Your task to perform on an android device: toggle location history Image 0: 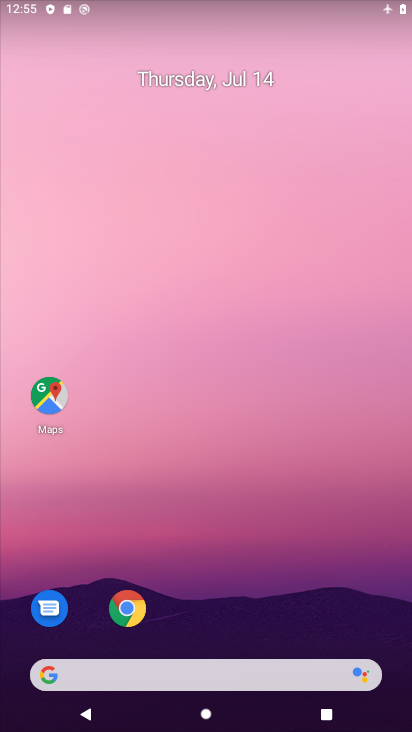
Step 0: click (48, 394)
Your task to perform on an android device: toggle location history Image 1: 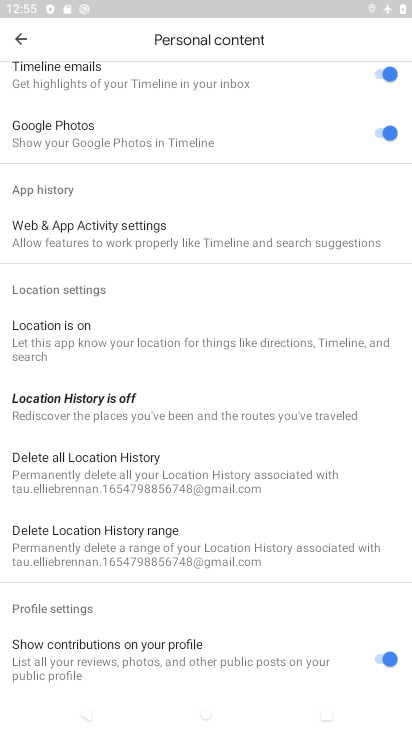
Step 1: click (72, 404)
Your task to perform on an android device: toggle location history Image 2: 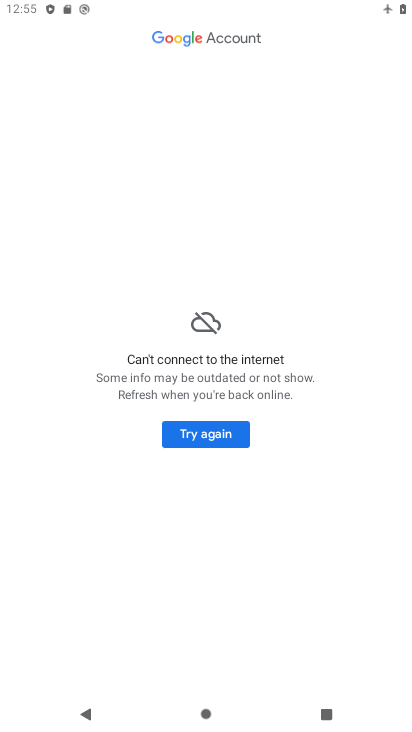
Step 2: click (211, 435)
Your task to perform on an android device: toggle location history Image 3: 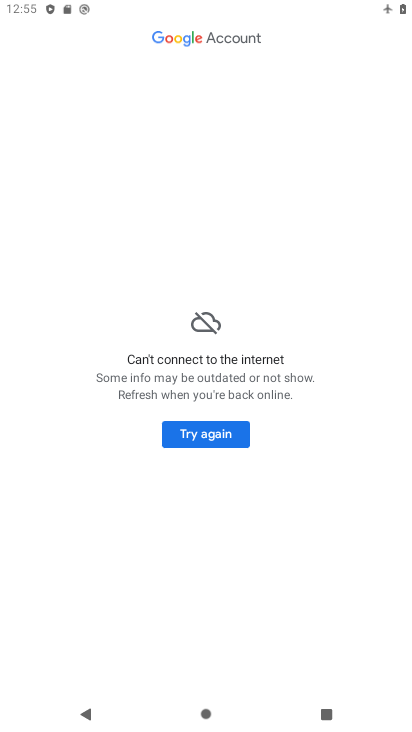
Step 3: task complete